Your task to perform on an android device: What's the weather? Image 0: 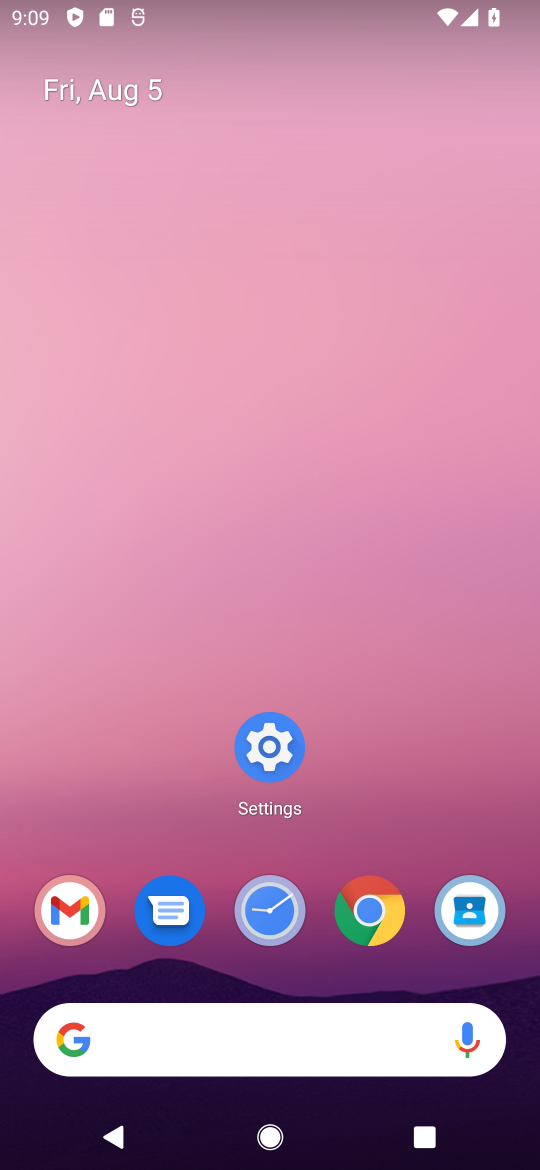
Step 0: click (190, 1035)
Your task to perform on an android device: What's the weather? Image 1: 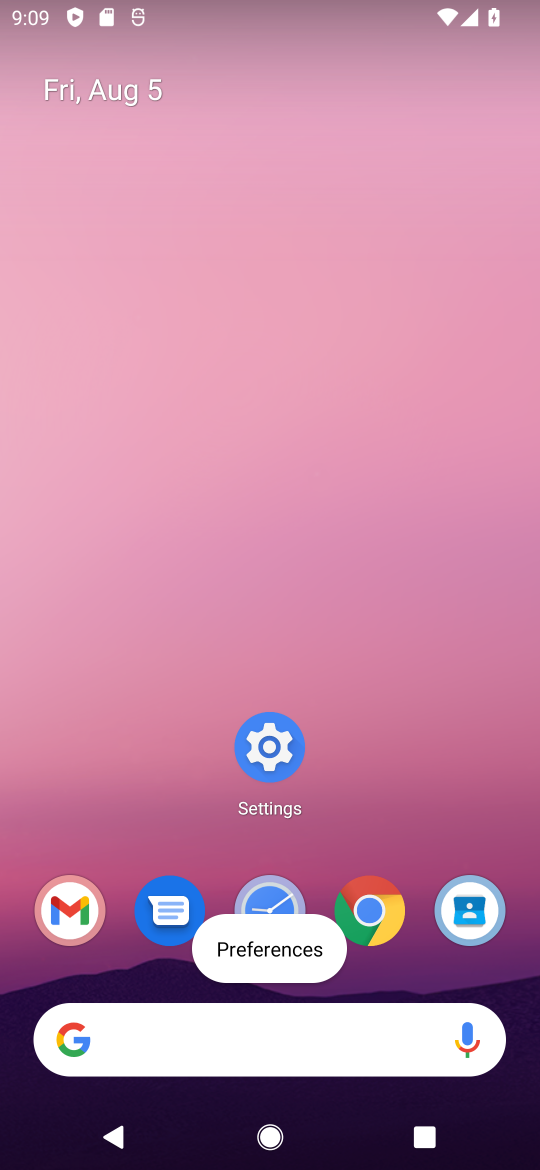
Step 1: click (184, 1030)
Your task to perform on an android device: What's the weather? Image 2: 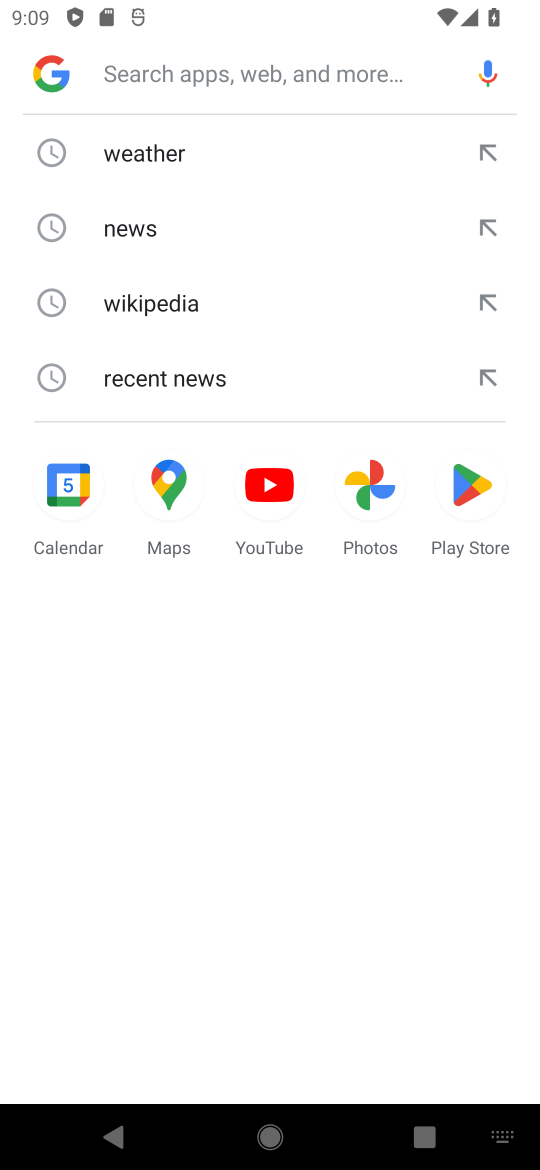
Step 2: click (142, 139)
Your task to perform on an android device: What's the weather? Image 3: 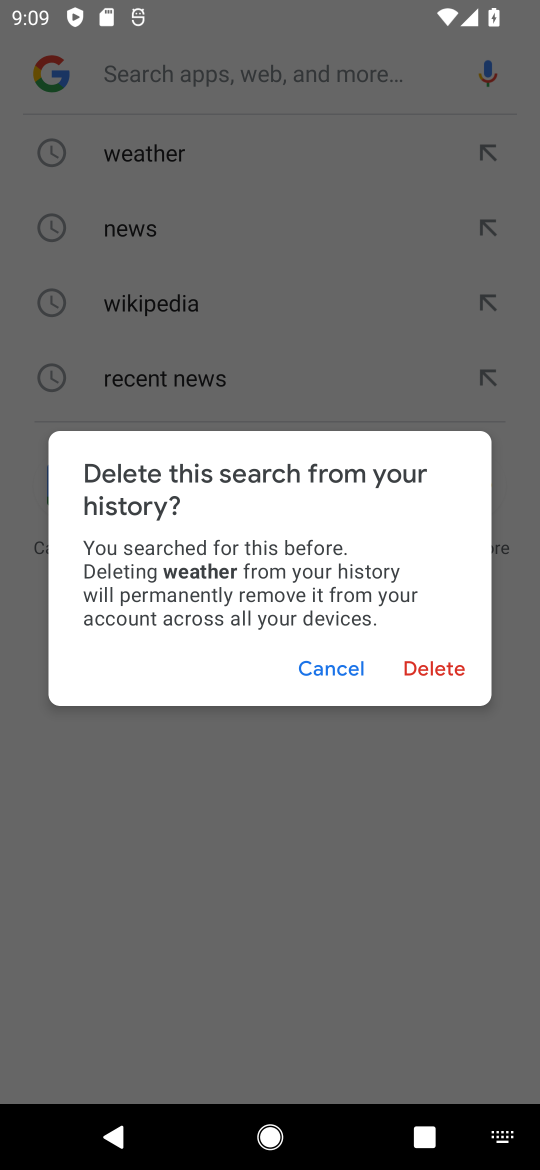
Step 3: click (341, 667)
Your task to perform on an android device: What's the weather? Image 4: 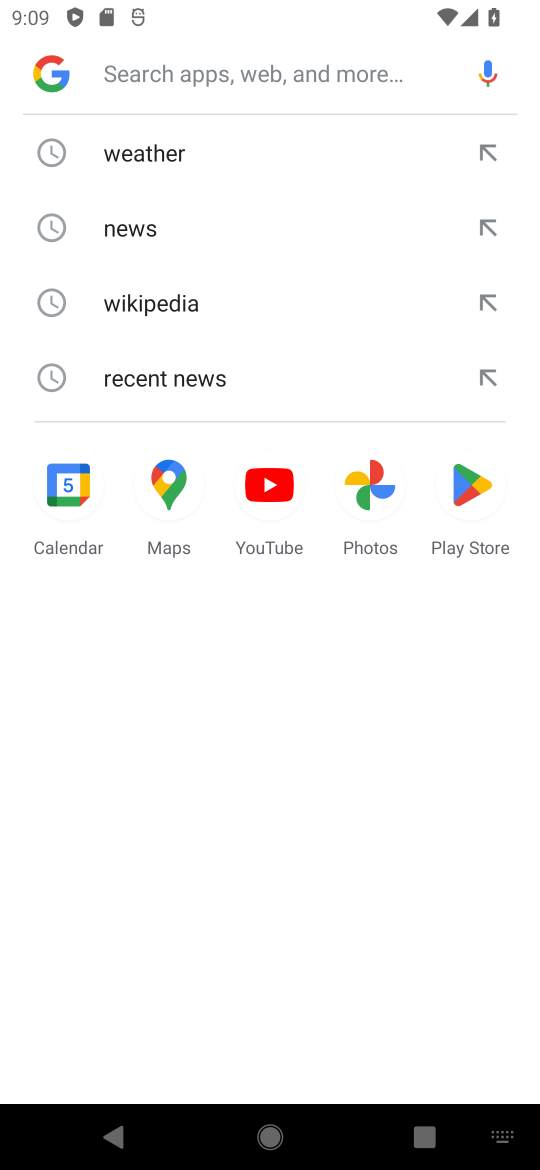
Step 4: click (311, 159)
Your task to perform on an android device: What's the weather? Image 5: 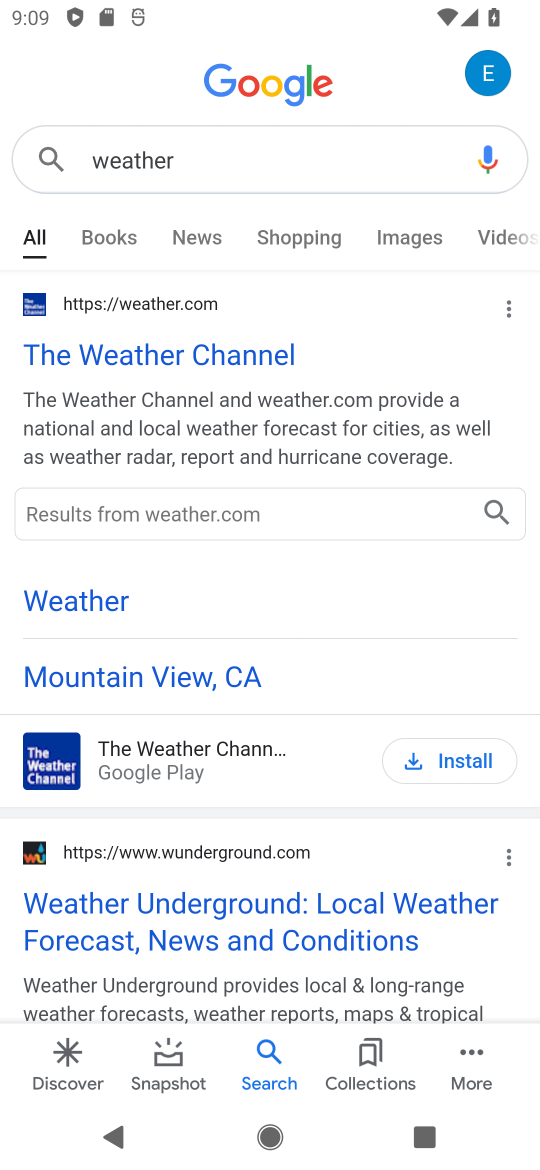
Step 5: click (236, 349)
Your task to perform on an android device: What's the weather? Image 6: 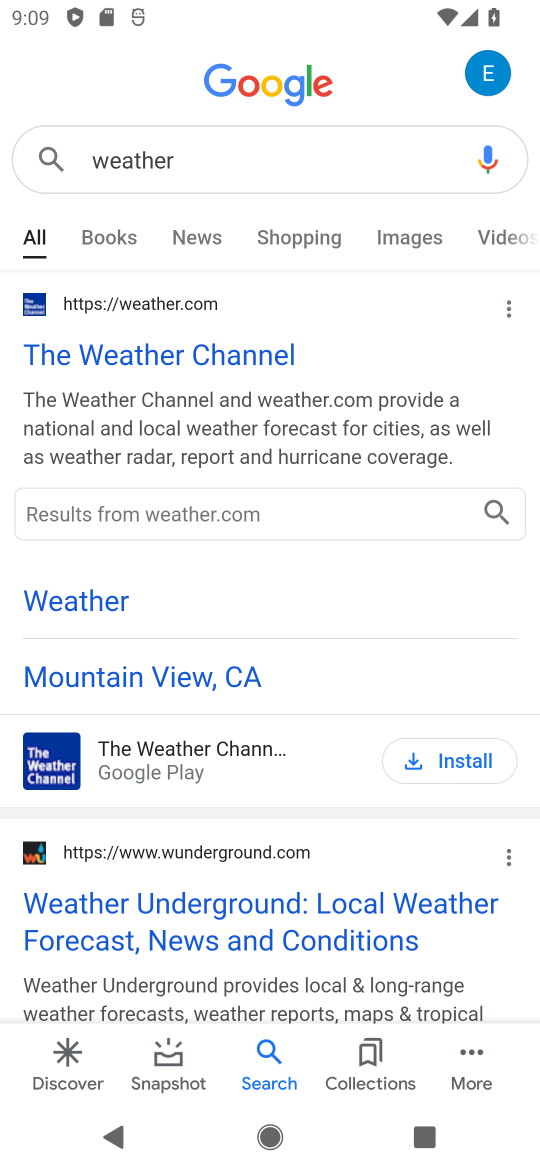
Step 6: click (68, 599)
Your task to perform on an android device: What's the weather? Image 7: 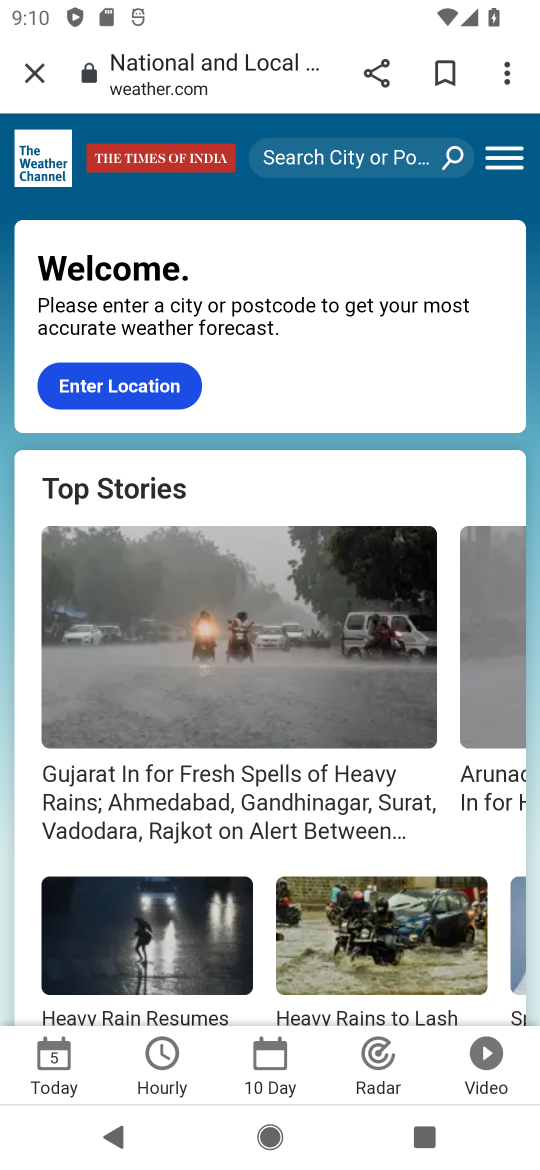
Step 7: drag from (236, 845) to (528, 106)
Your task to perform on an android device: What's the weather? Image 8: 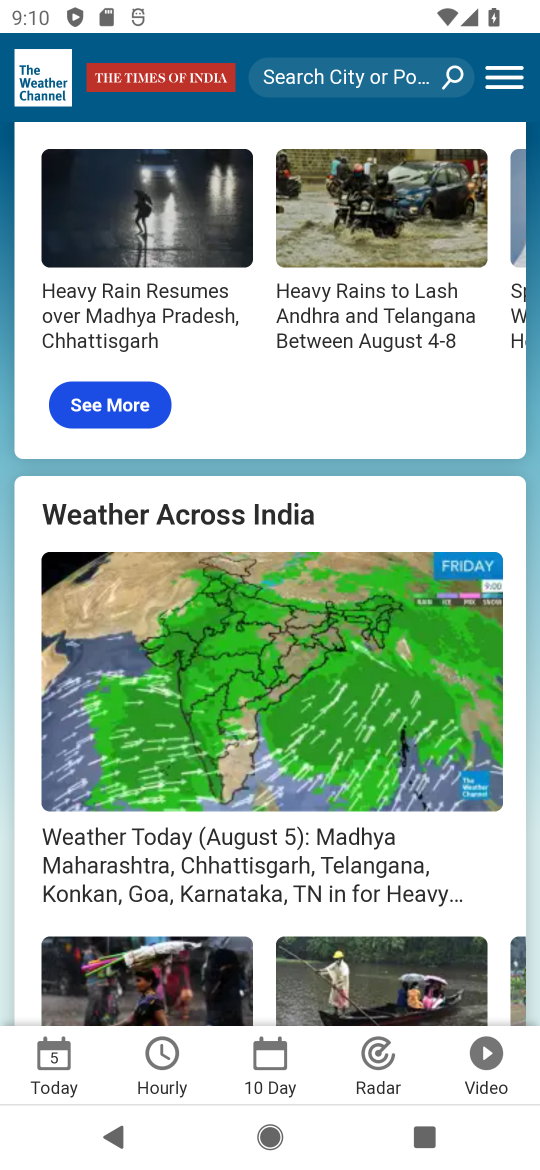
Step 8: click (56, 1055)
Your task to perform on an android device: What's the weather? Image 9: 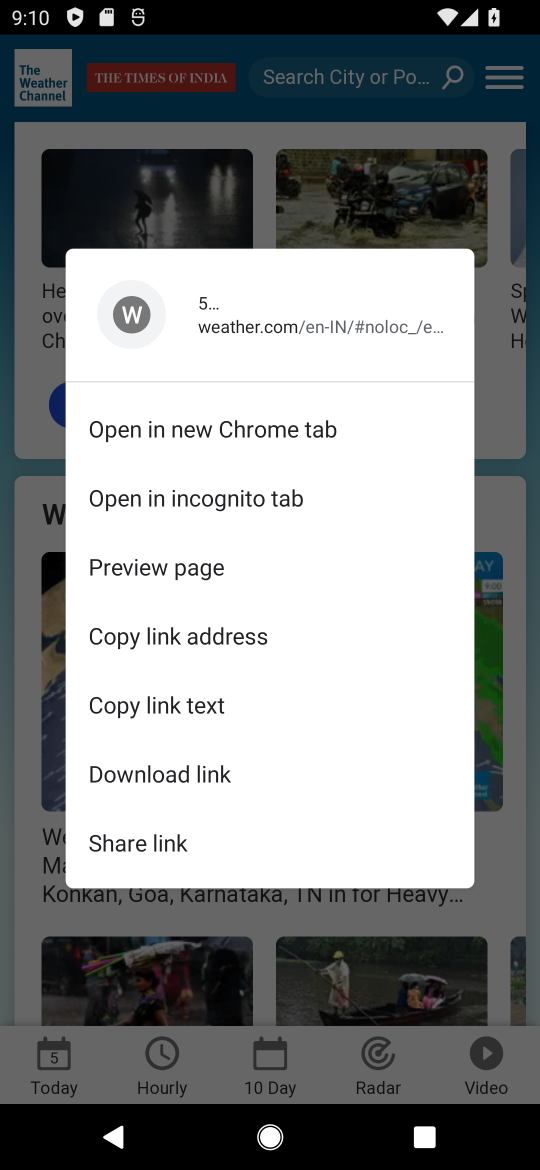
Step 9: click (56, 1055)
Your task to perform on an android device: What's the weather? Image 10: 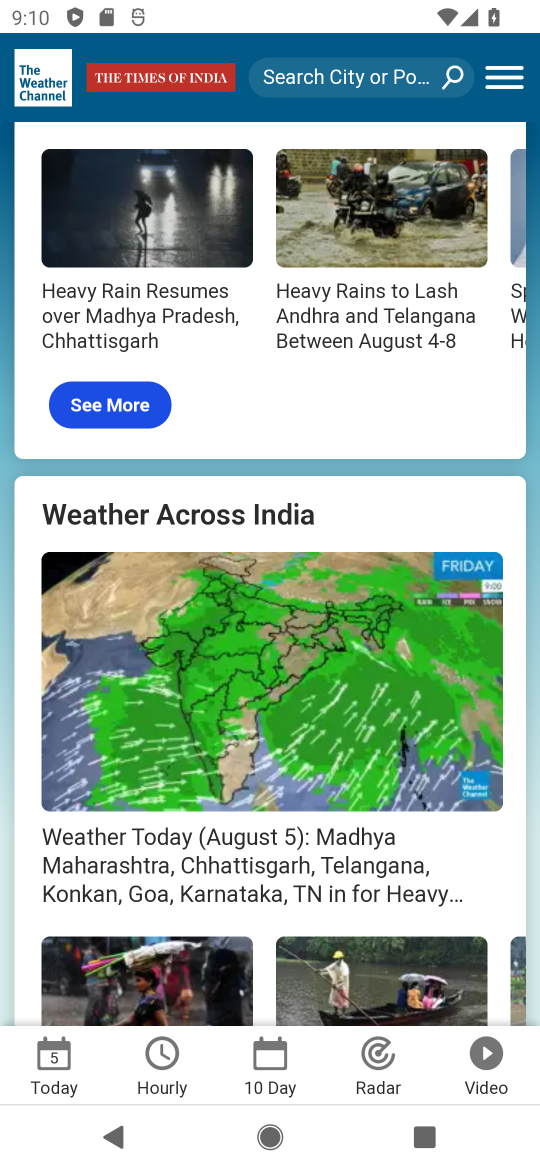
Step 10: task complete